Your task to perform on an android device: change notifications settings Image 0: 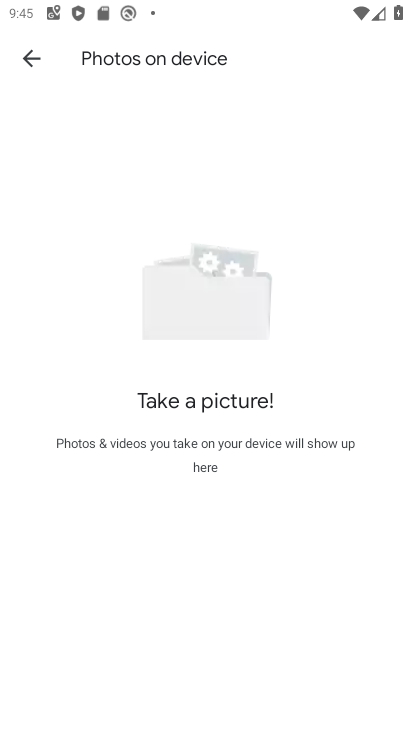
Step 0: press home button
Your task to perform on an android device: change notifications settings Image 1: 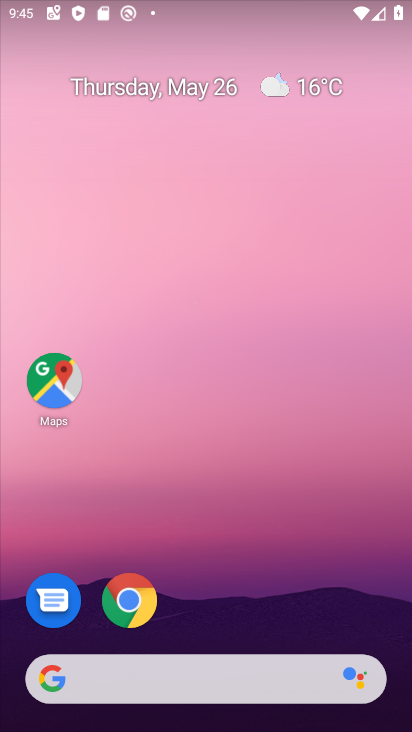
Step 1: drag from (217, 607) to (209, 110)
Your task to perform on an android device: change notifications settings Image 2: 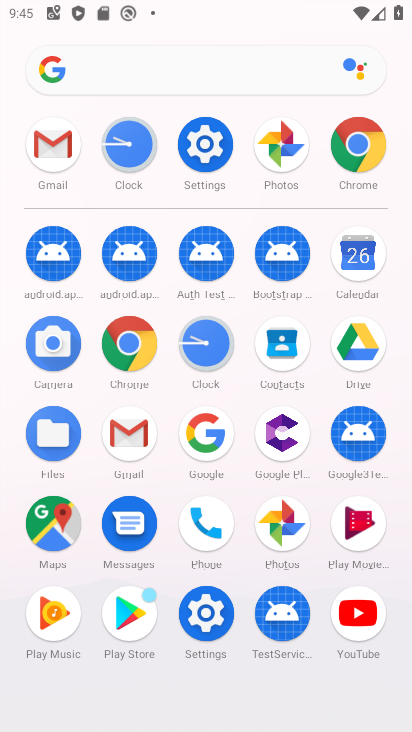
Step 2: click (196, 154)
Your task to perform on an android device: change notifications settings Image 3: 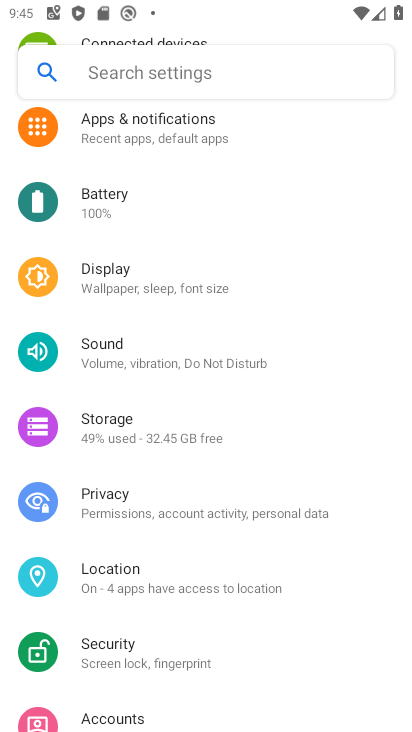
Step 3: click (196, 154)
Your task to perform on an android device: change notifications settings Image 4: 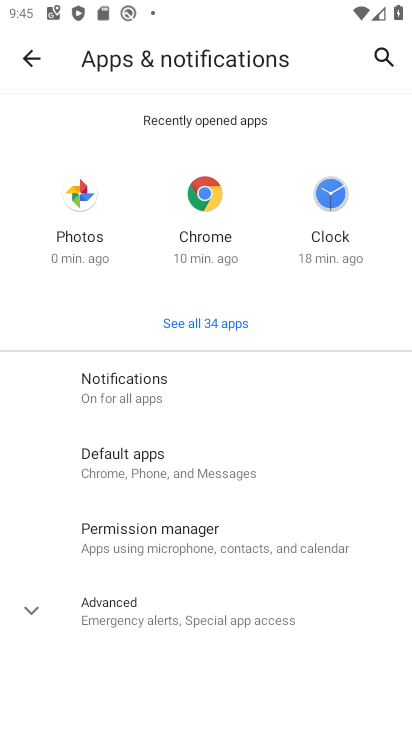
Step 4: task complete